Your task to perform on an android device: stop showing notifications on the lock screen Image 0: 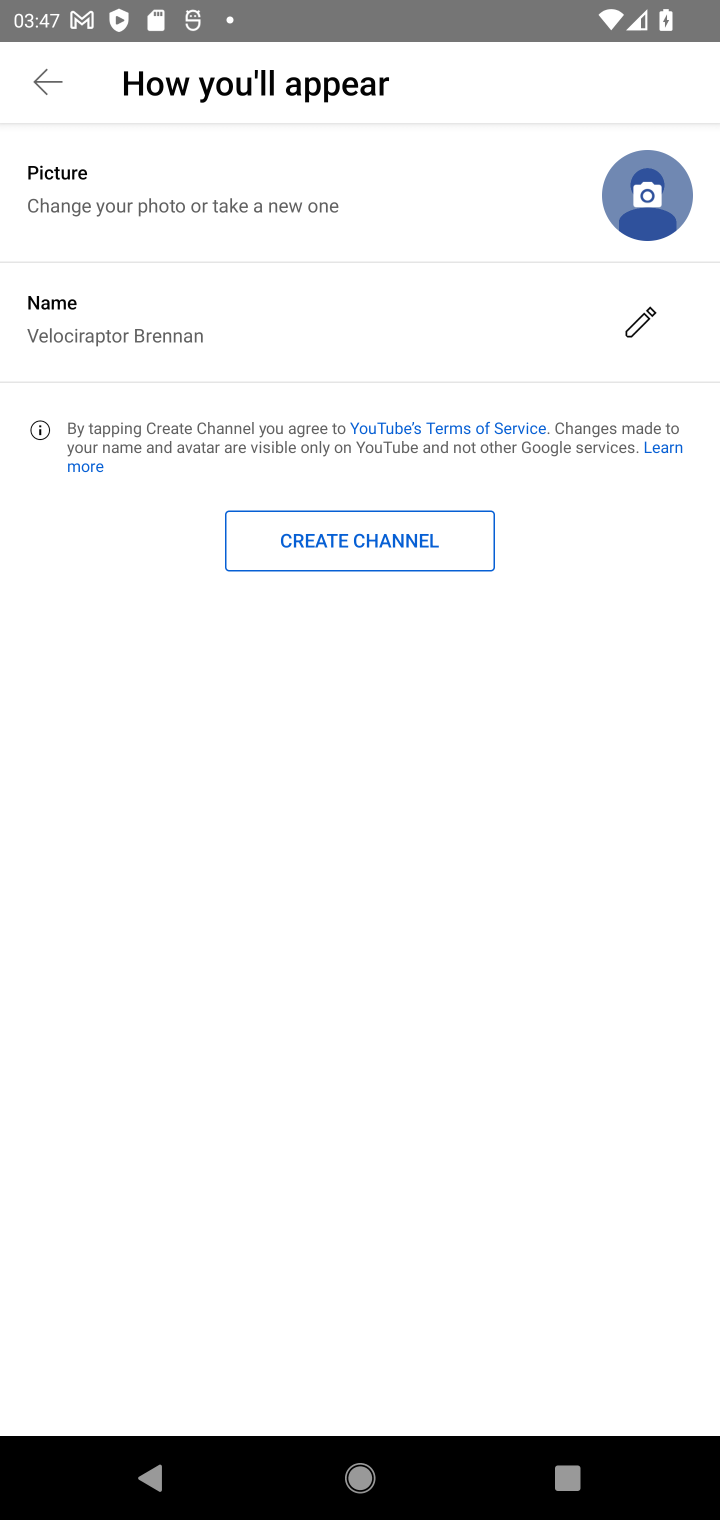
Step 0: press home button
Your task to perform on an android device: stop showing notifications on the lock screen Image 1: 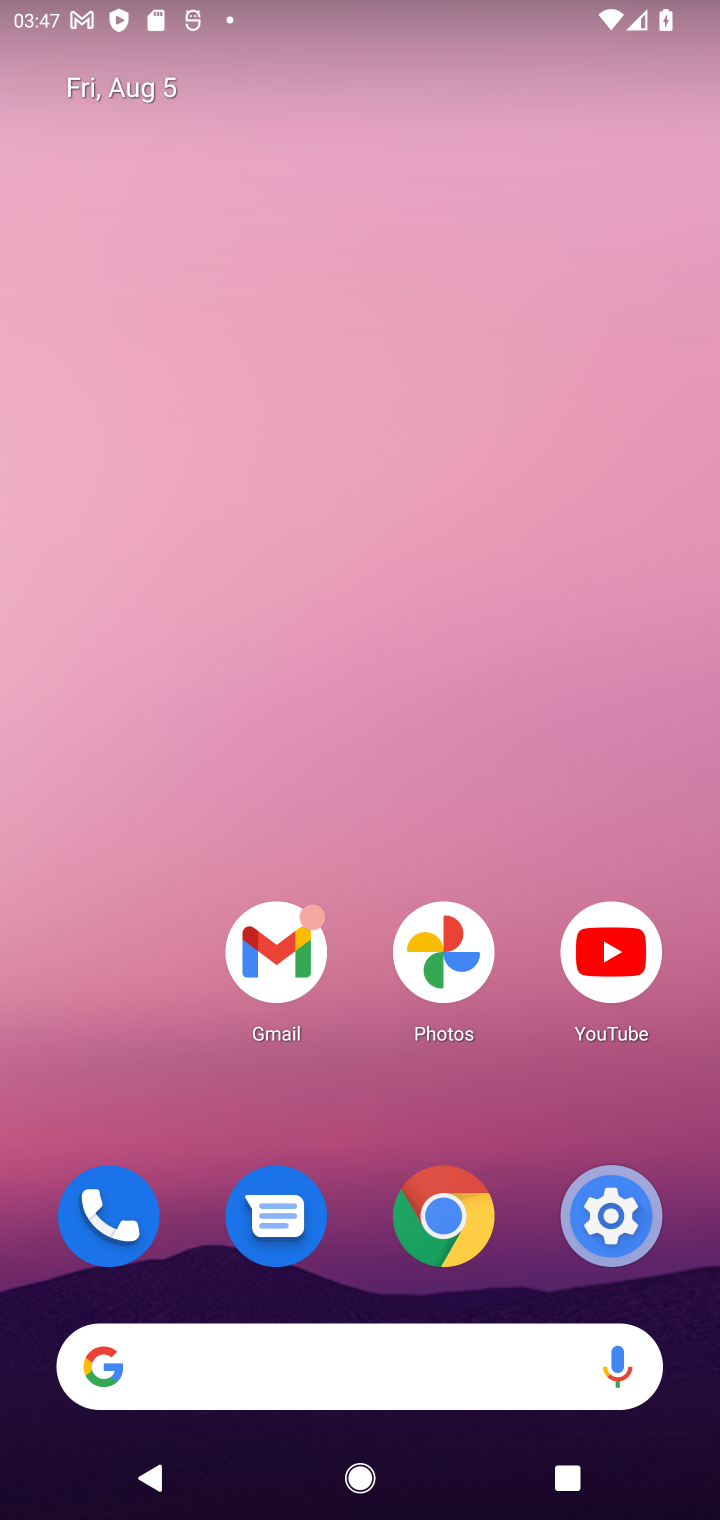
Step 1: click (630, 1215)
Your task to perform on an android device: stop showing notifications on the lock screen Image 2: 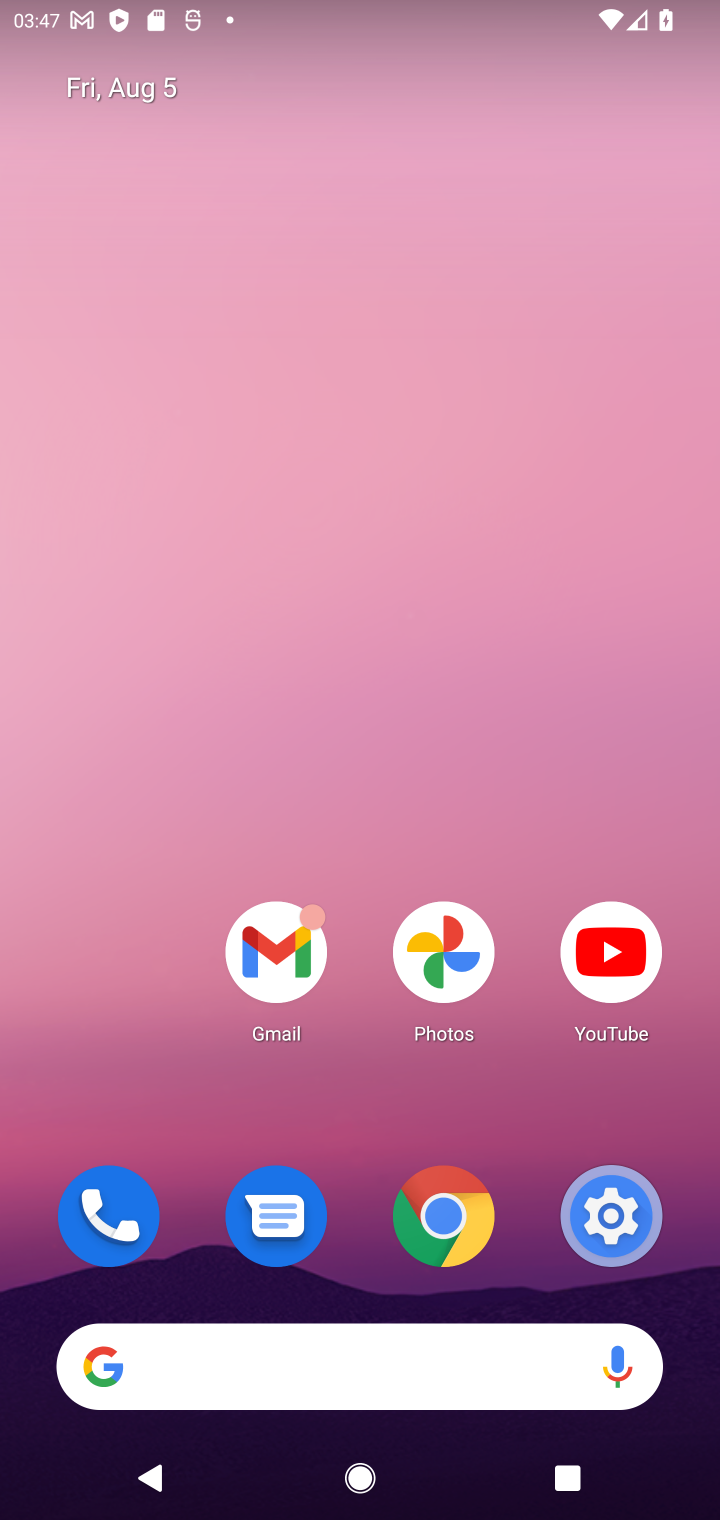
Step 2: click (640, 1211)
Your task to perform on an android device: stop showing notifications on the lock screen Image 3: 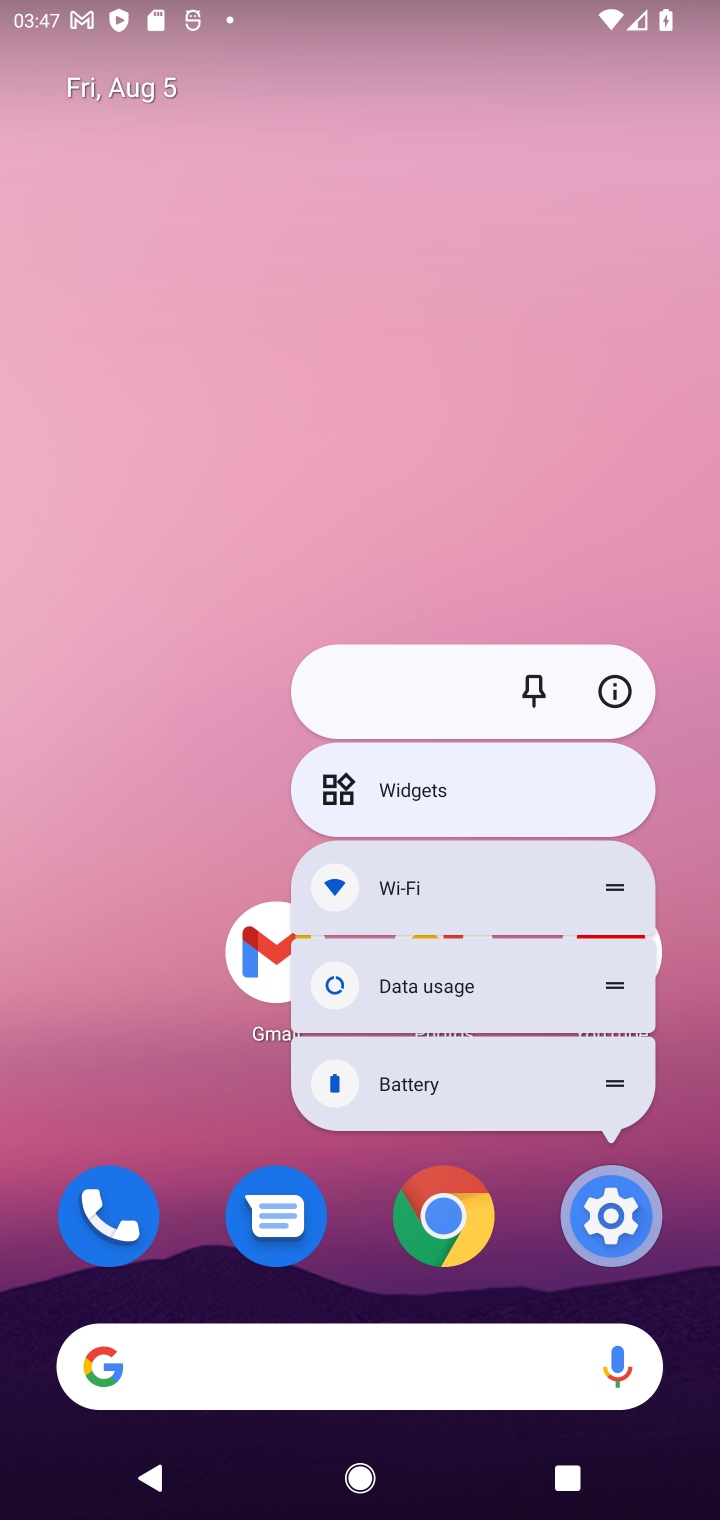
Step 3: click (636, 1224)
Your task to perform on an android device: stop showing notifications on the lock screen Image 4: 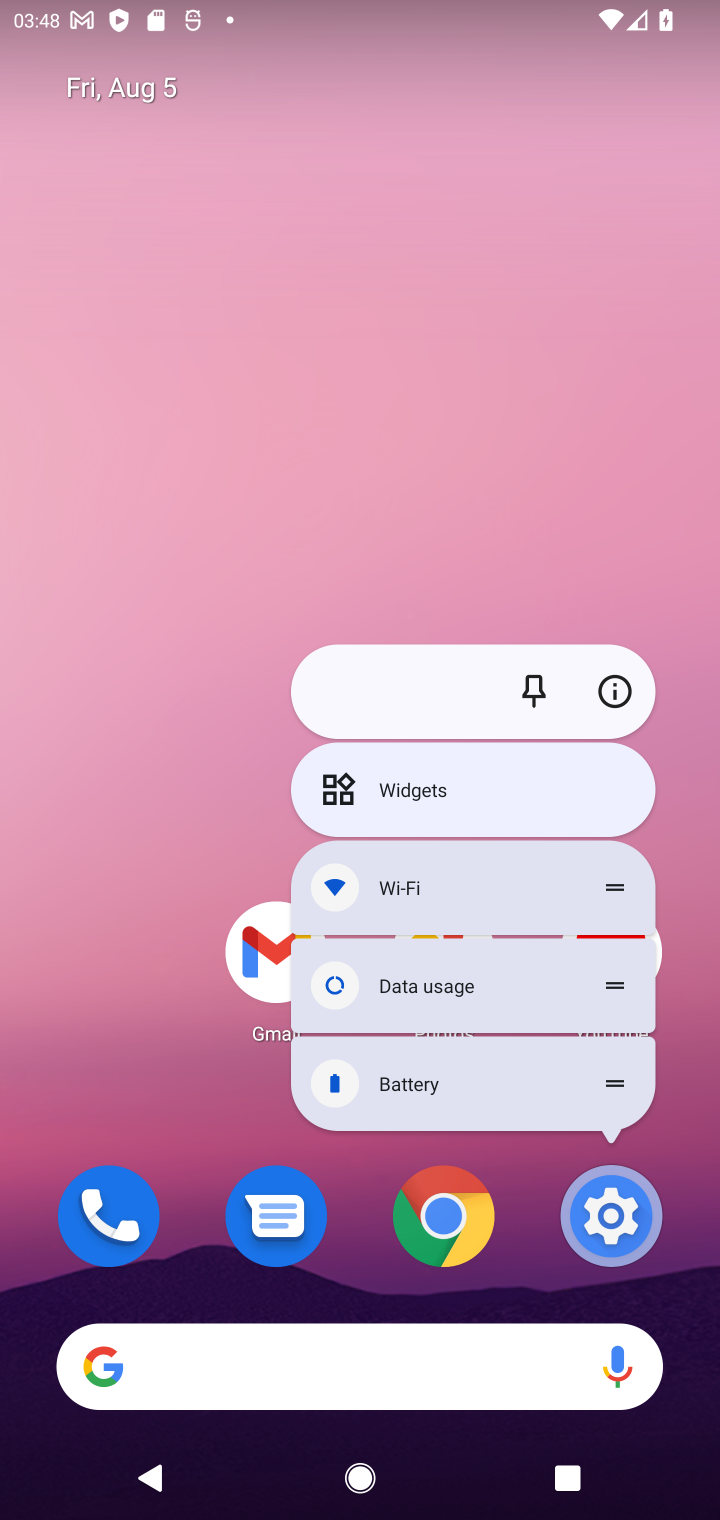
Step 4: click (636, 1224)
Your task to perform on an android device: stop showing notifications on the lock screen Image 5: 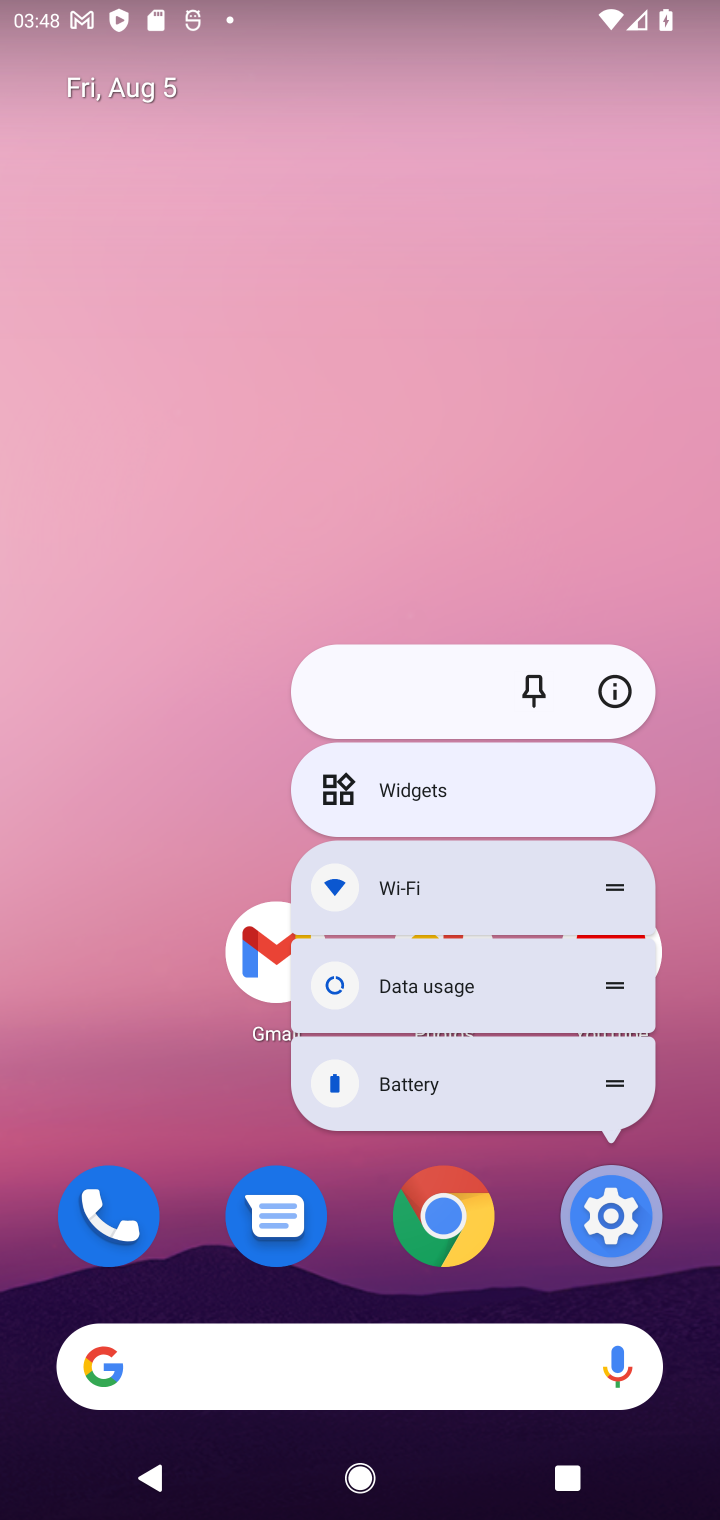
Step 5: click (636, 1224)
Your task to perform on an android device: stop showing notifications on the lock screen Image 6: 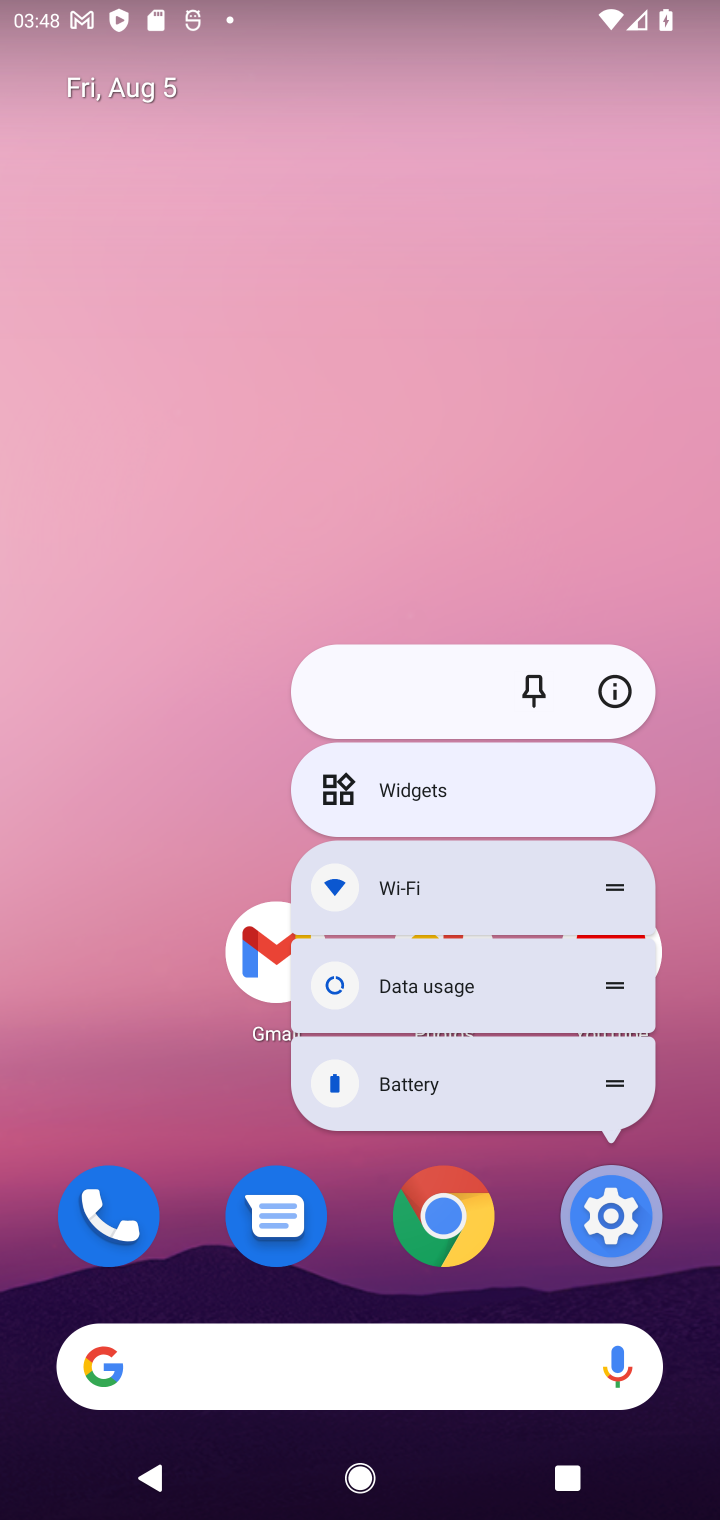
Step 6: click (636, 1224)
Your task to perform on an android device: stop showing notifications on the lock screen Image 7: 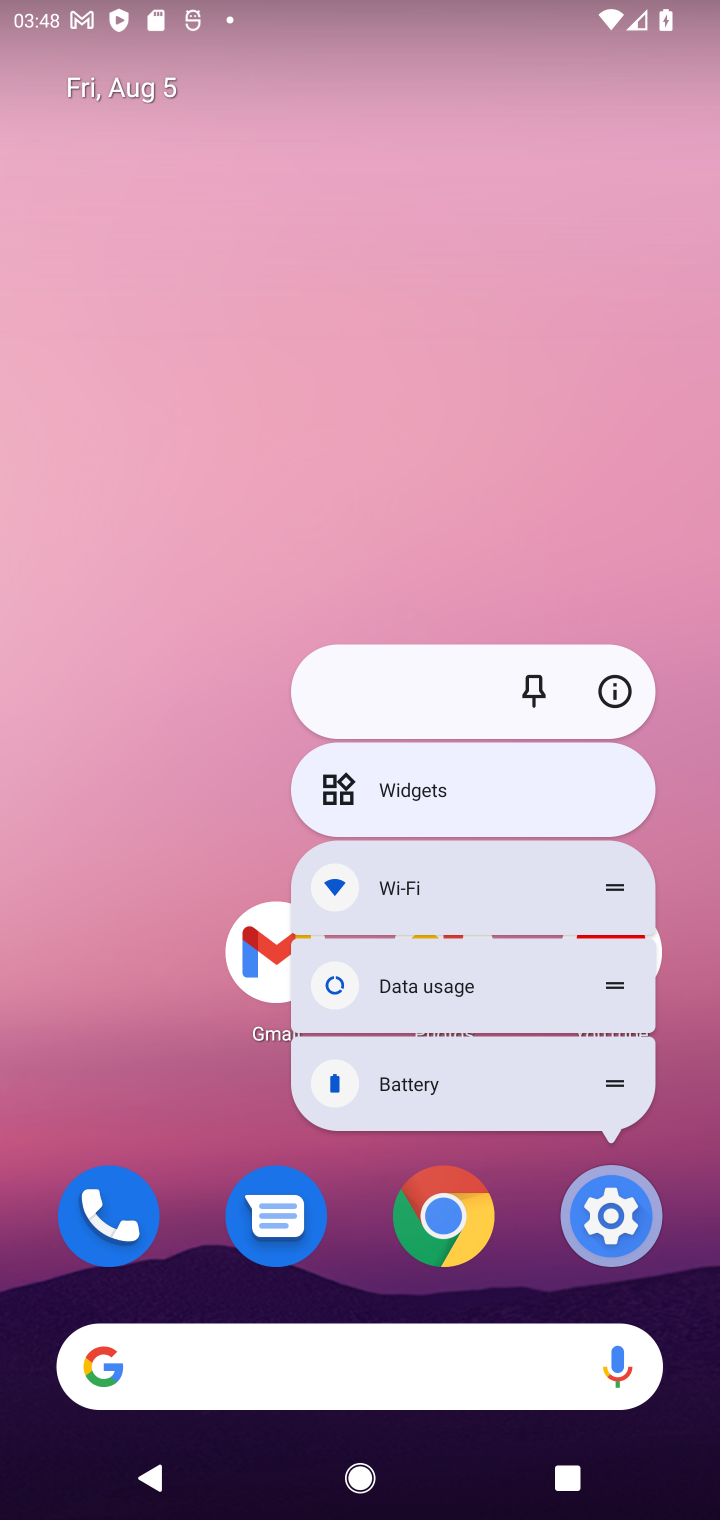
Step 7: click (636, 1224)
Your task to perform on an android device: stop showing notifications on the lock screen Image 8: 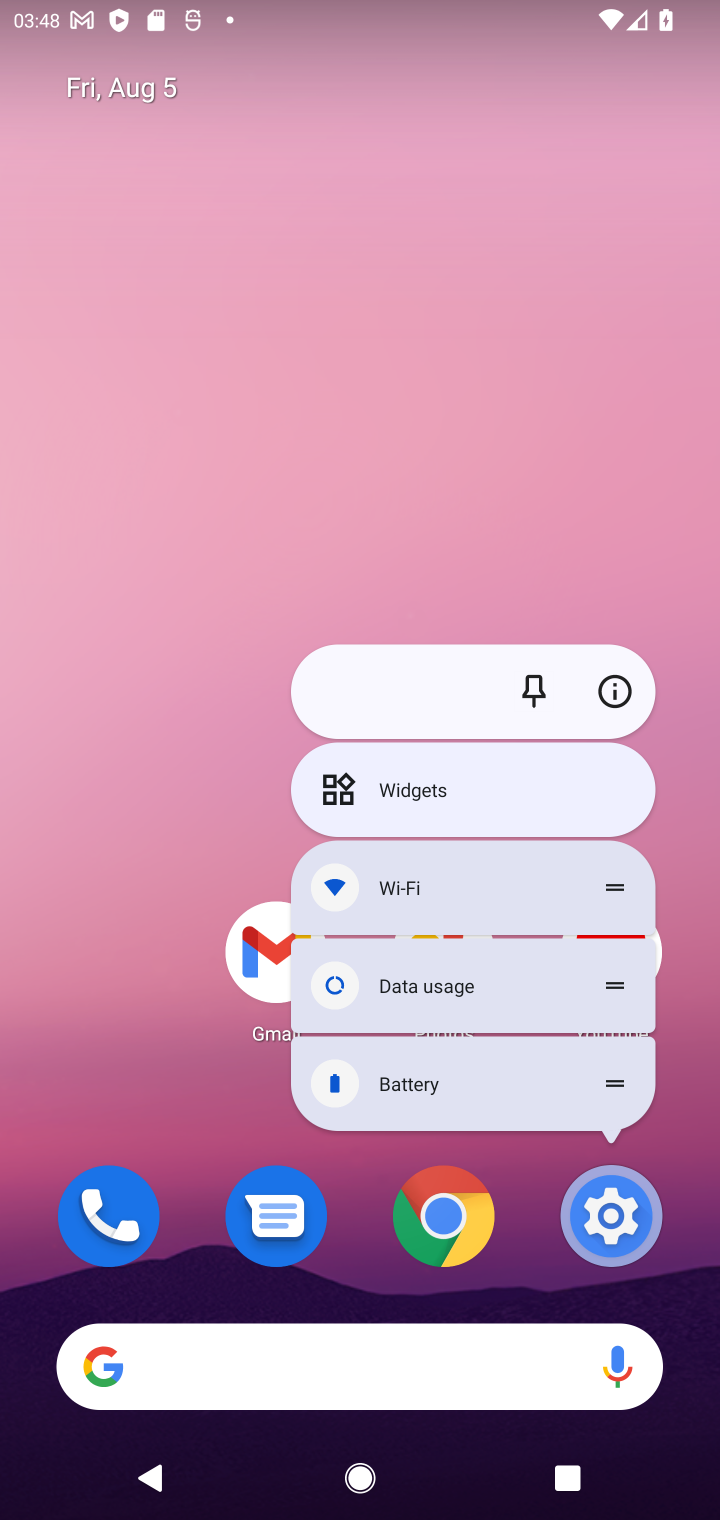
Step 8: click (617, 1210)
Your task to perform on an android device: stop showing notifications on the lock screen Image 9: 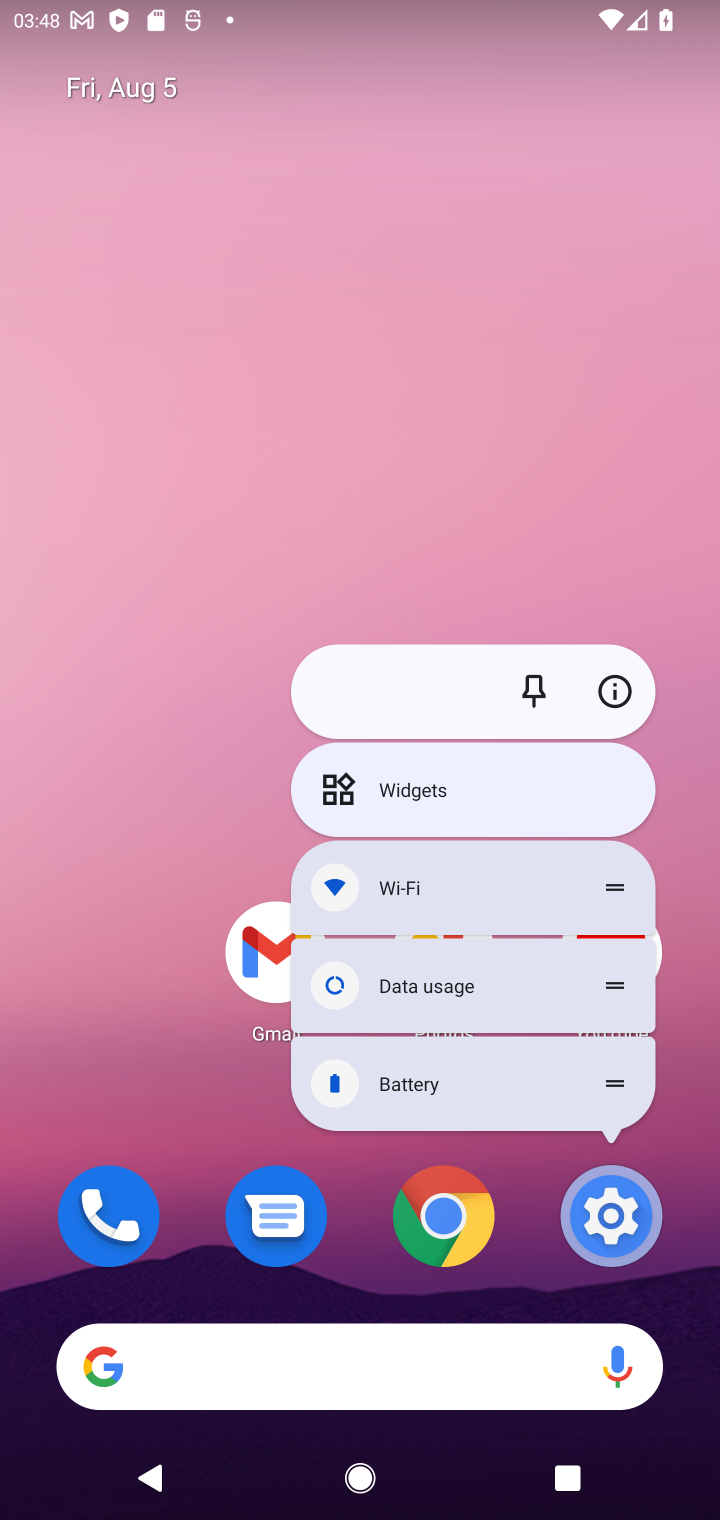
Step 9: click (617, 1210)
Your task to perform on an android device: stop showing notifications on the lock screen Image 10: 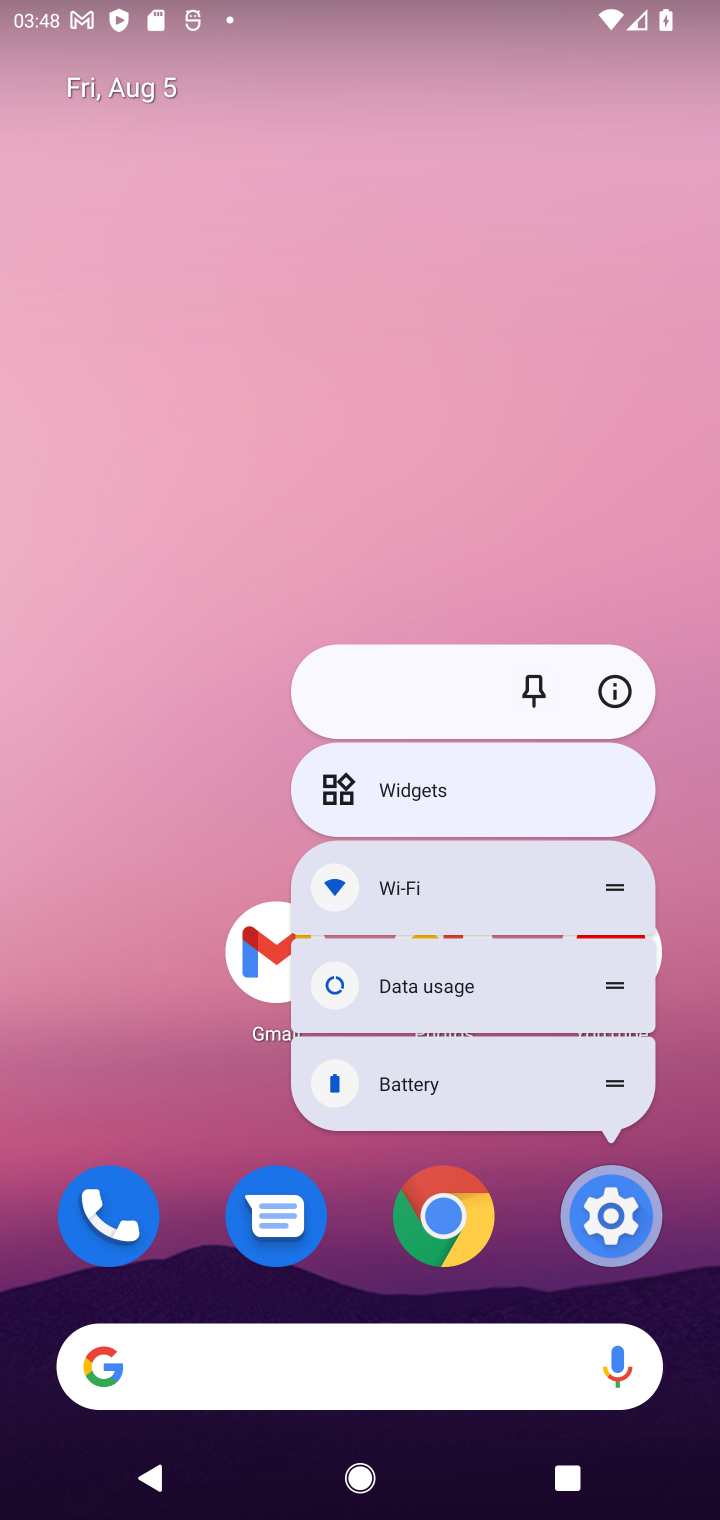
Step 10: click (621, 1243)
Your task to perform on an android device: stop showing notifications on the lock screen Image 11: 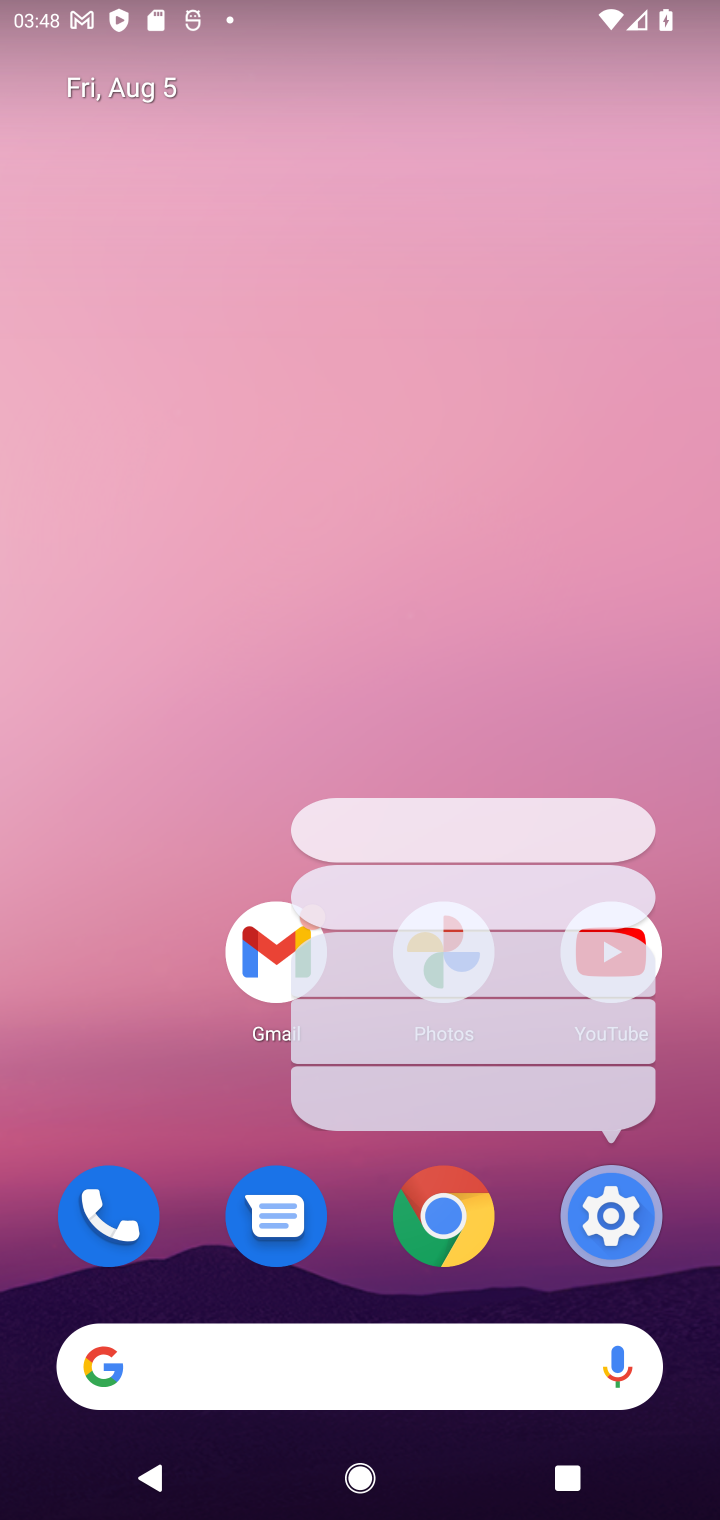
Step 11: click (621, 1239)
Your task to perform on an android device: stop showing notifications on the lock screen Image 12: 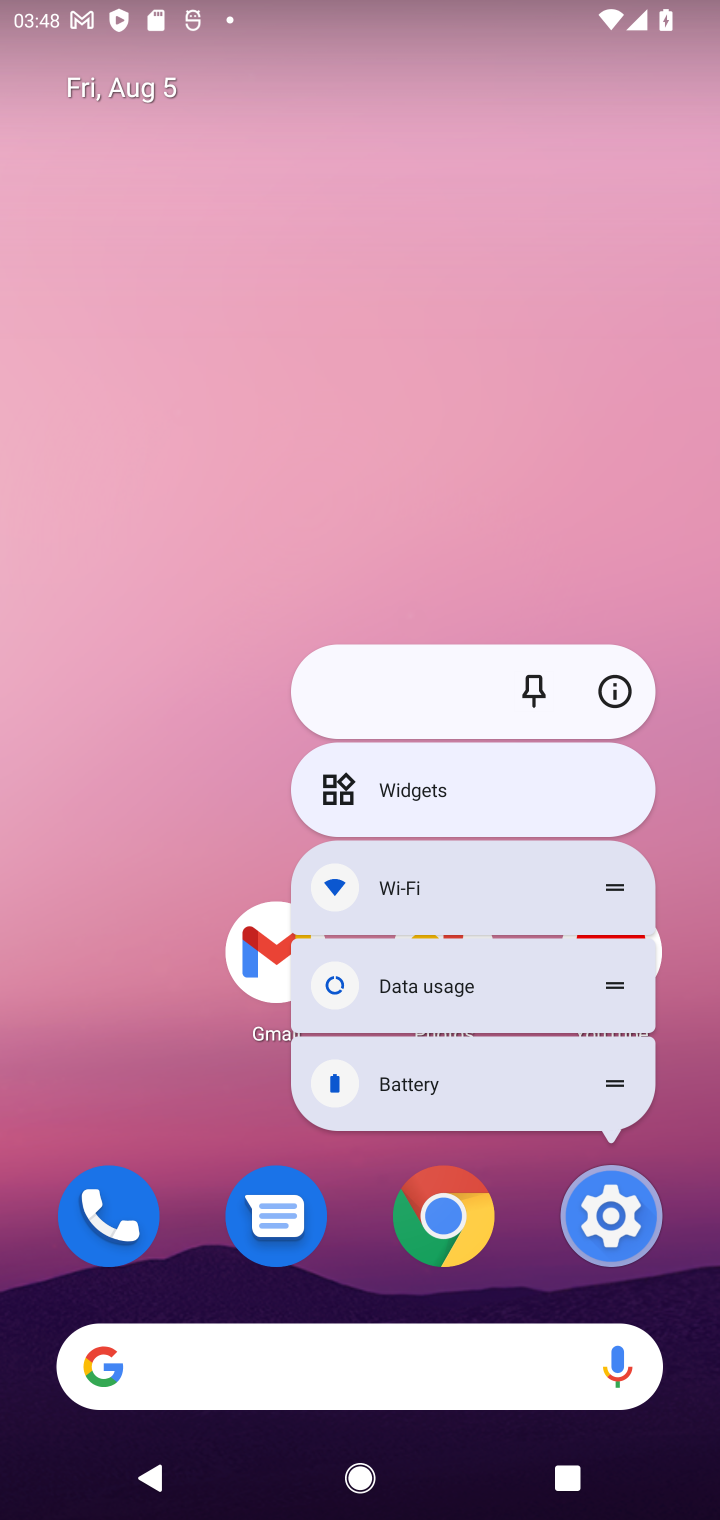
Step 12: drag from (586, 1170) to (611, 1276)
Your task to perform on an android device: stop showing notifications on the lock screen Image 13: 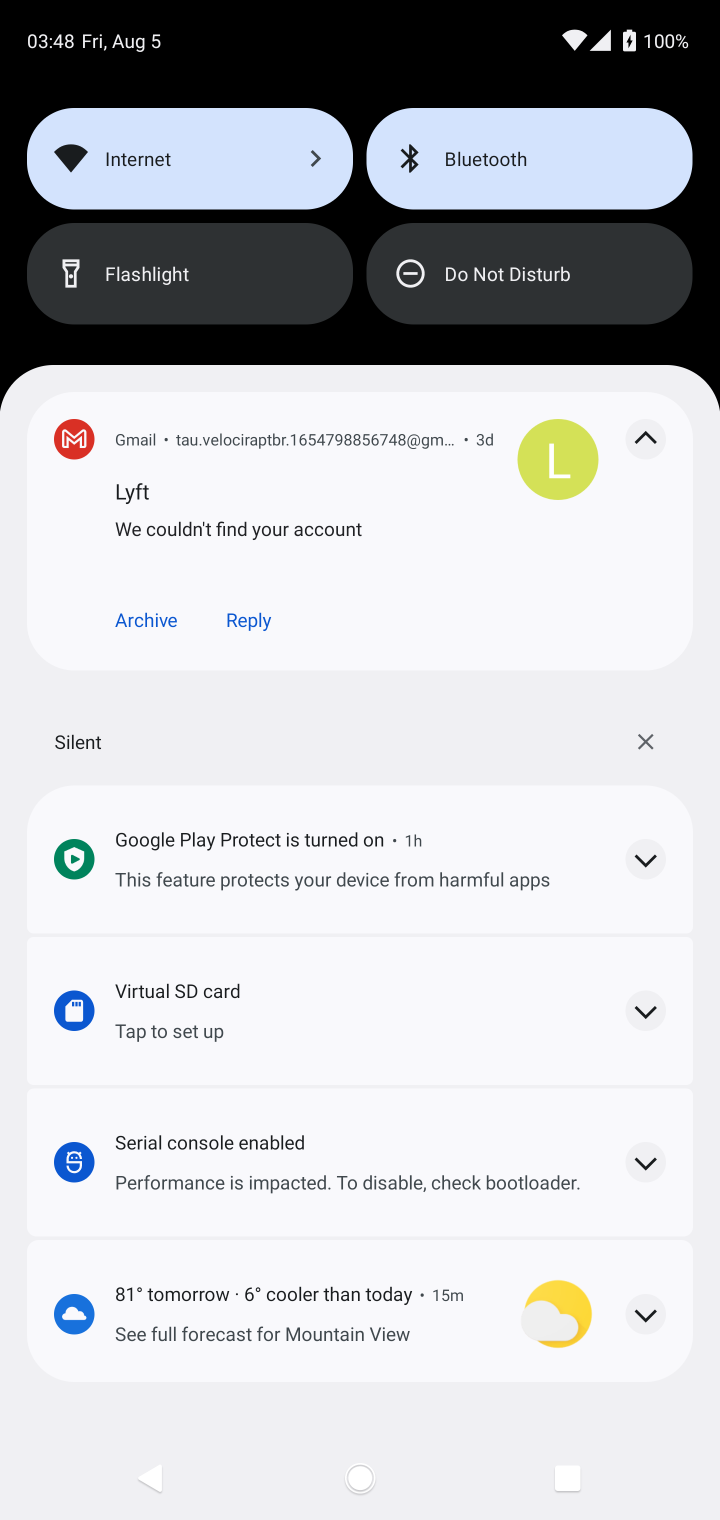
Step 13: click (614, 1213)
Your task to perform on an android device: stop showing notifications on the lock screen Image 14: 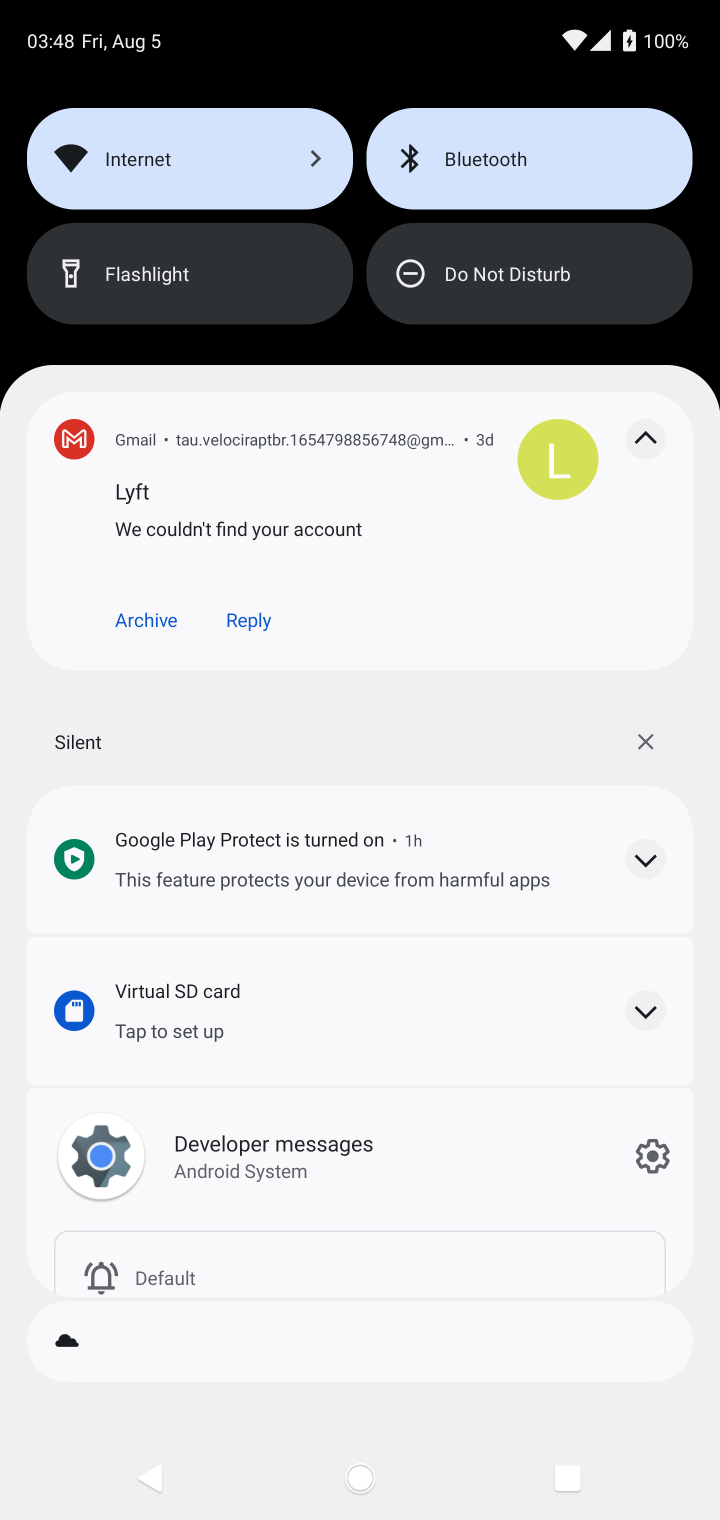
Step 14: press home button
Your task to perform on an android device: stop showing notifications on the lock screen Image 15: 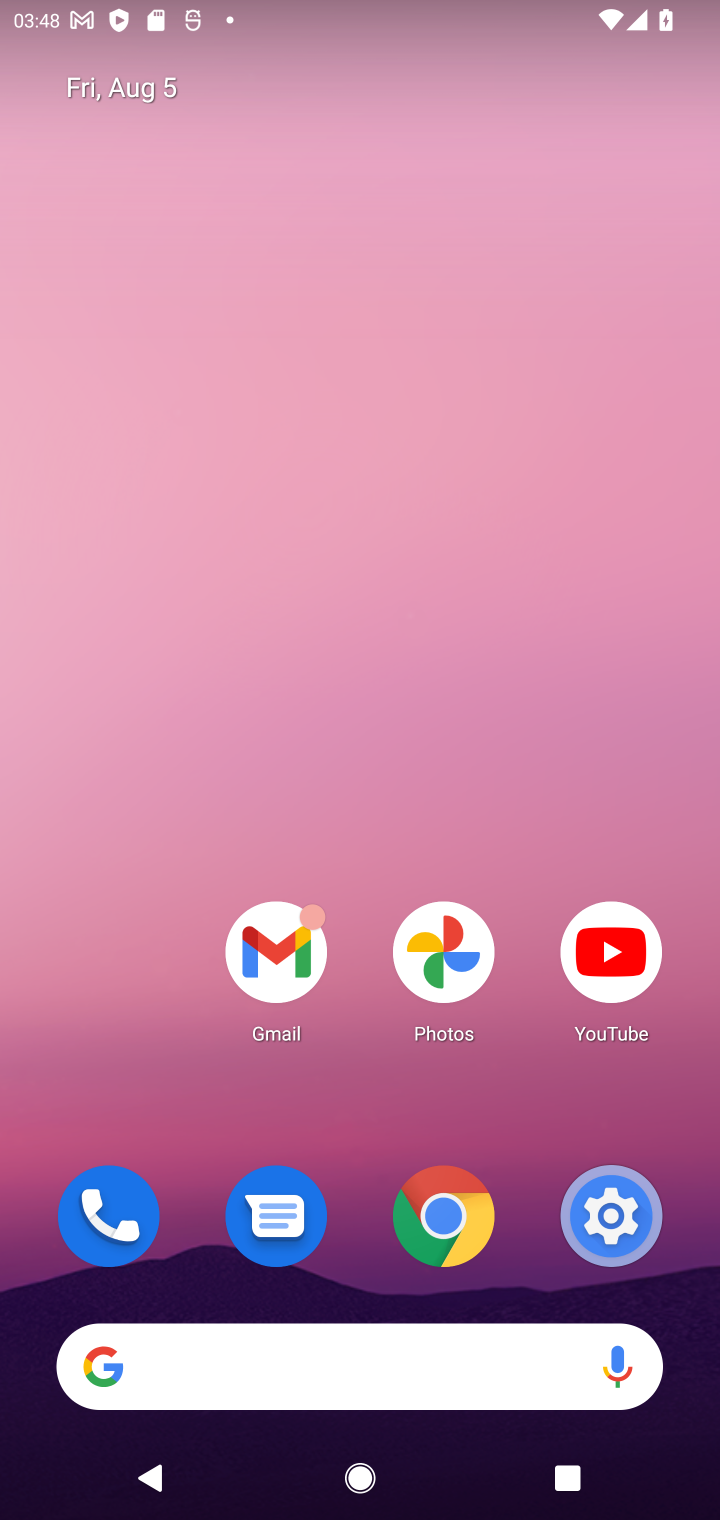
Step 15: click (611, 1224)
Your task to perform on an android device: stop showing notifications on the lock screen Image 16: 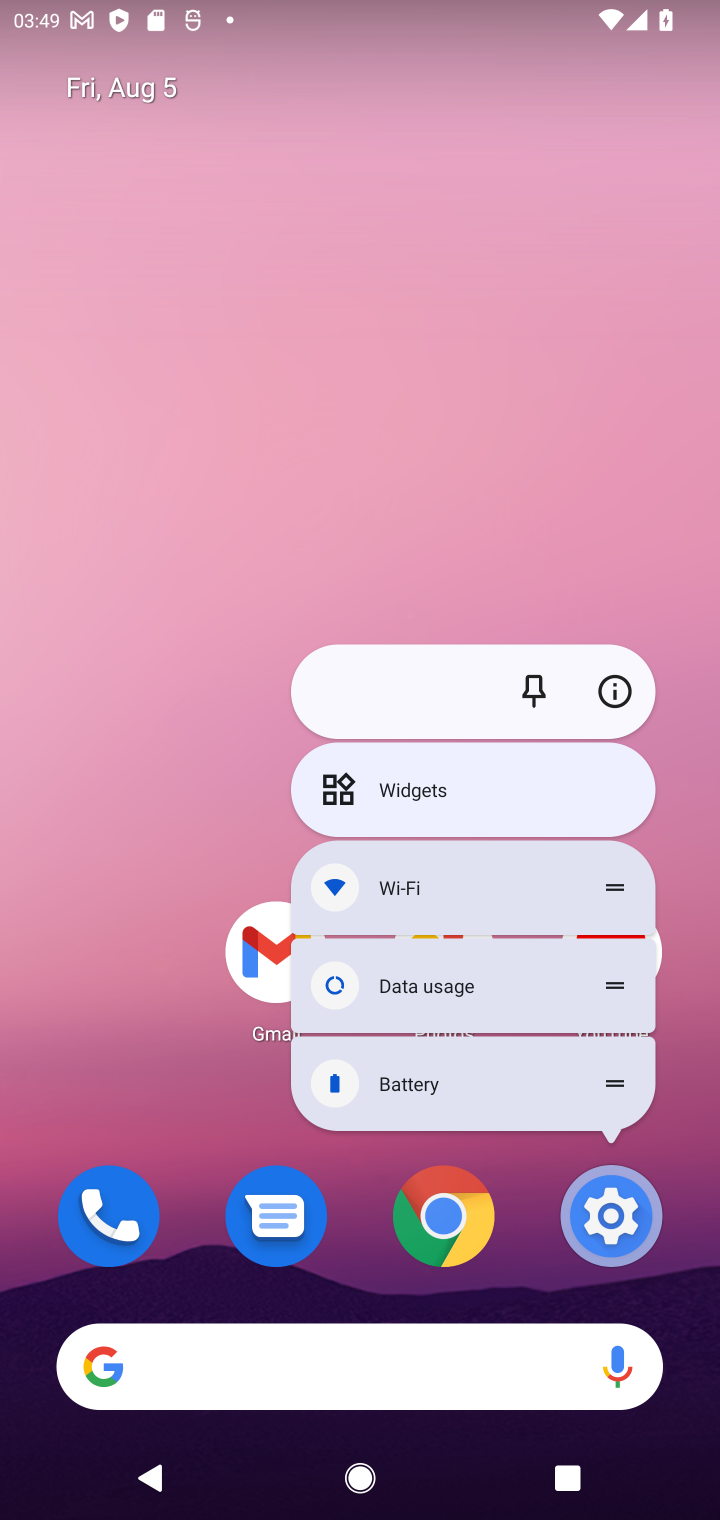
Step 16: click (630, 1228)
Your task to perform on an android device: stop showing notifications on the lock screen Image 17: 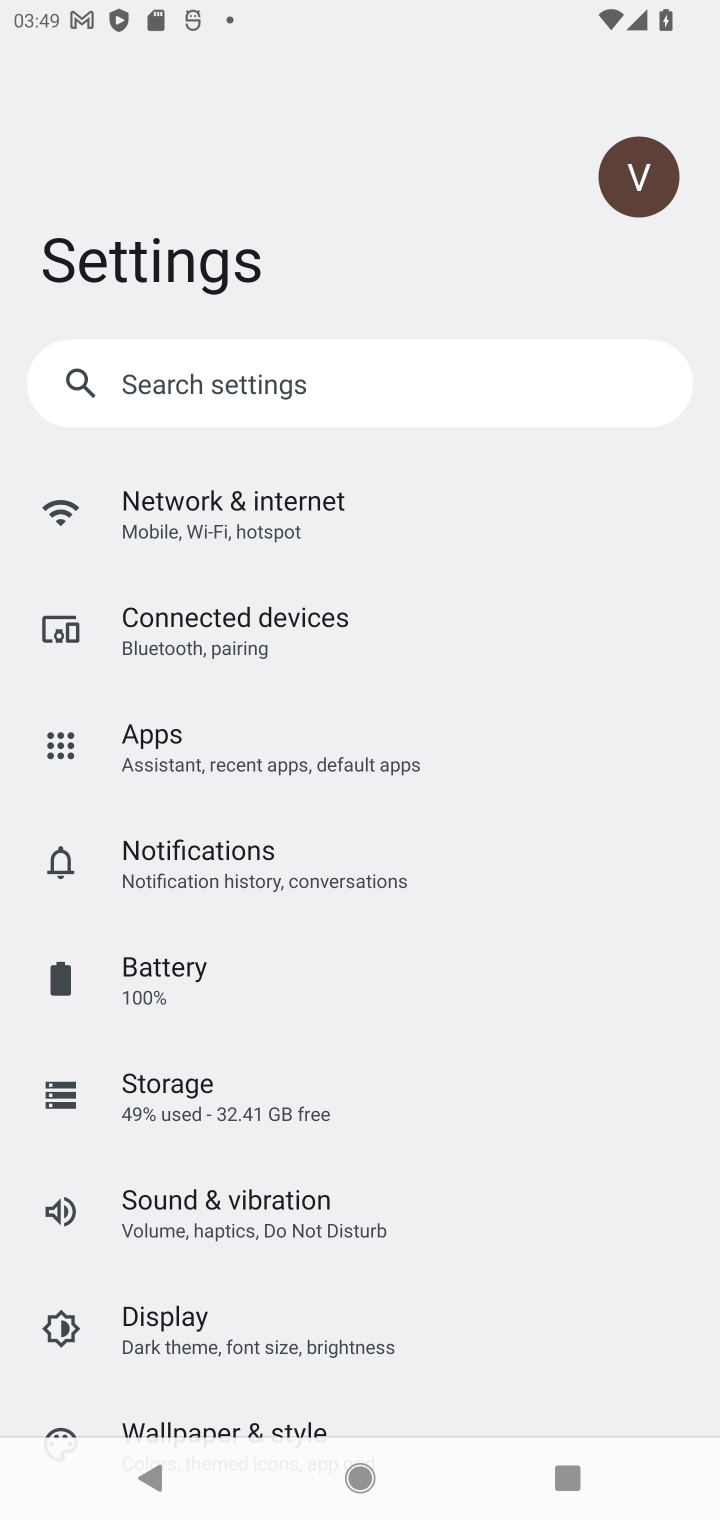
Step 17: click (385, 877)
Your task to perform on an android device: stop showing notifications on the lock screen Image 18: 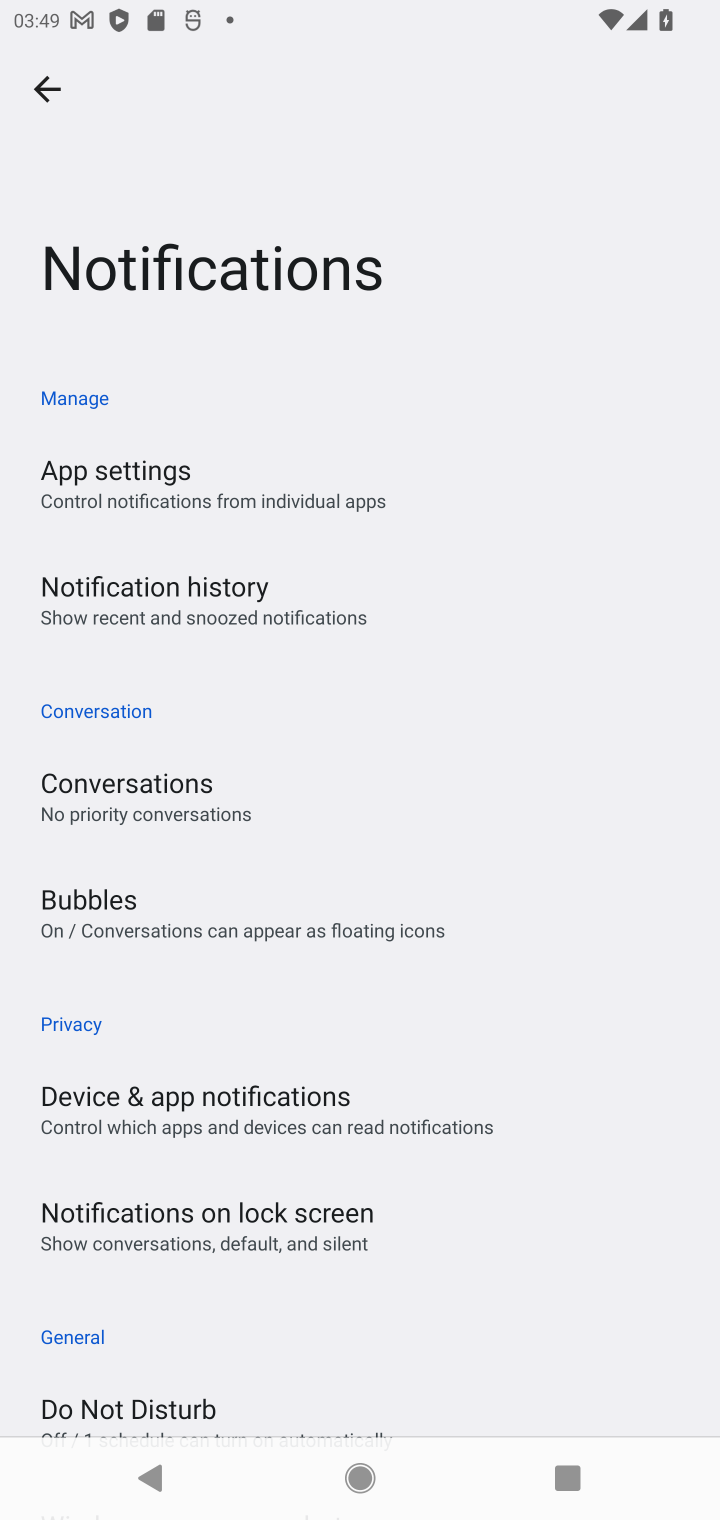
Step 18: drag from (453, 1346) to (679, 474)
Your task to perform on an android device: stop showing notifications on the lock screen Image 19: 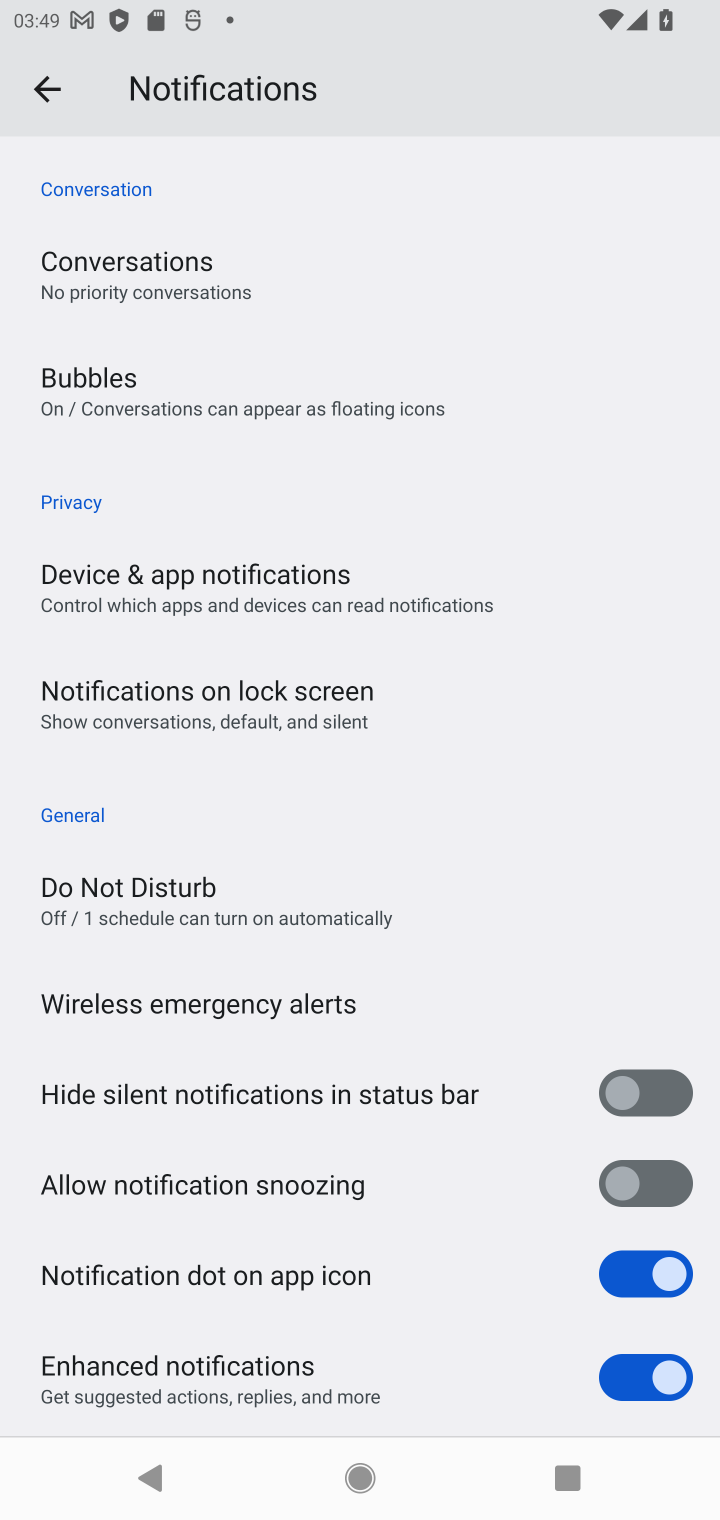
Step 19: click (242, 709)
Your task to perform on an android device: stop showing notifications on the lock screen Image 20: 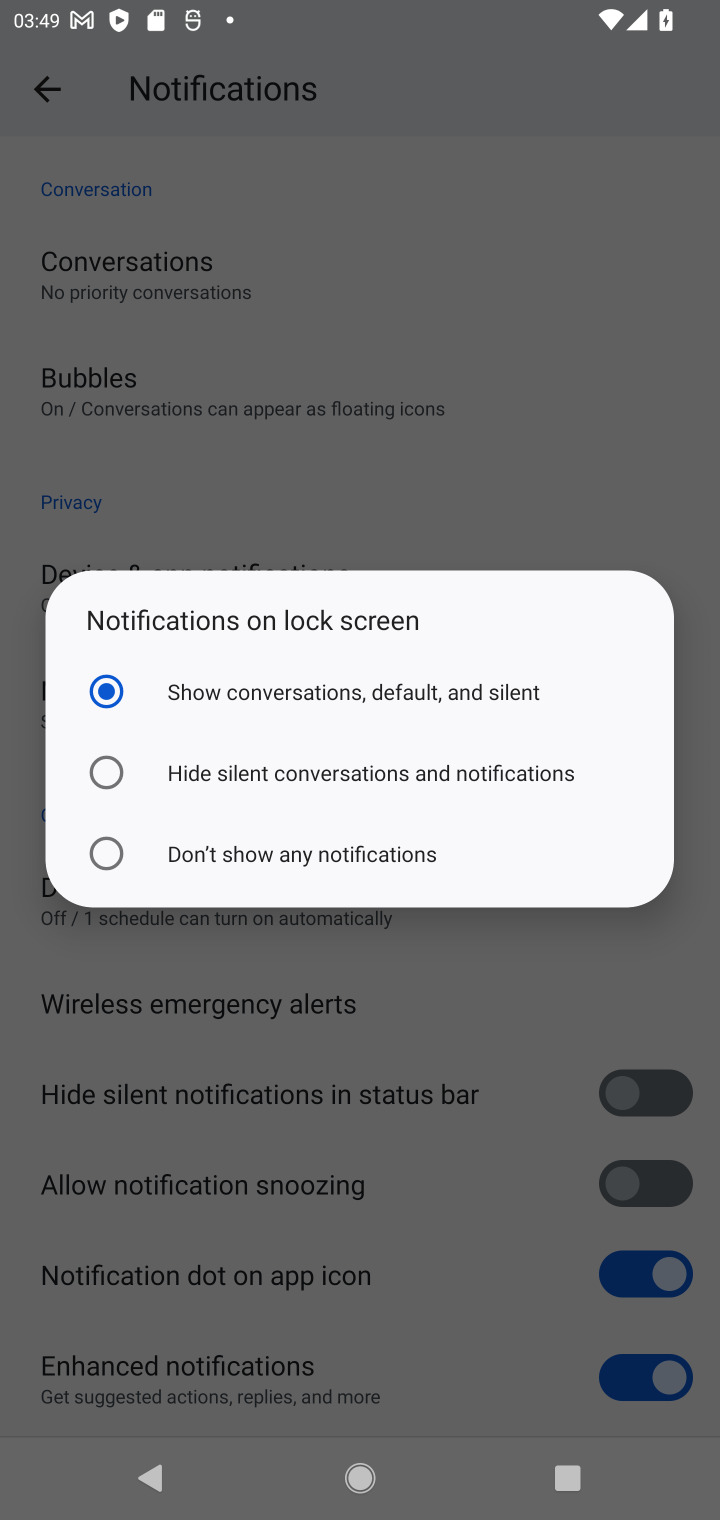
Step 20: click (304, 857)
Your task to perform on an android device: stop showing notifications on the lock screen Image 21: 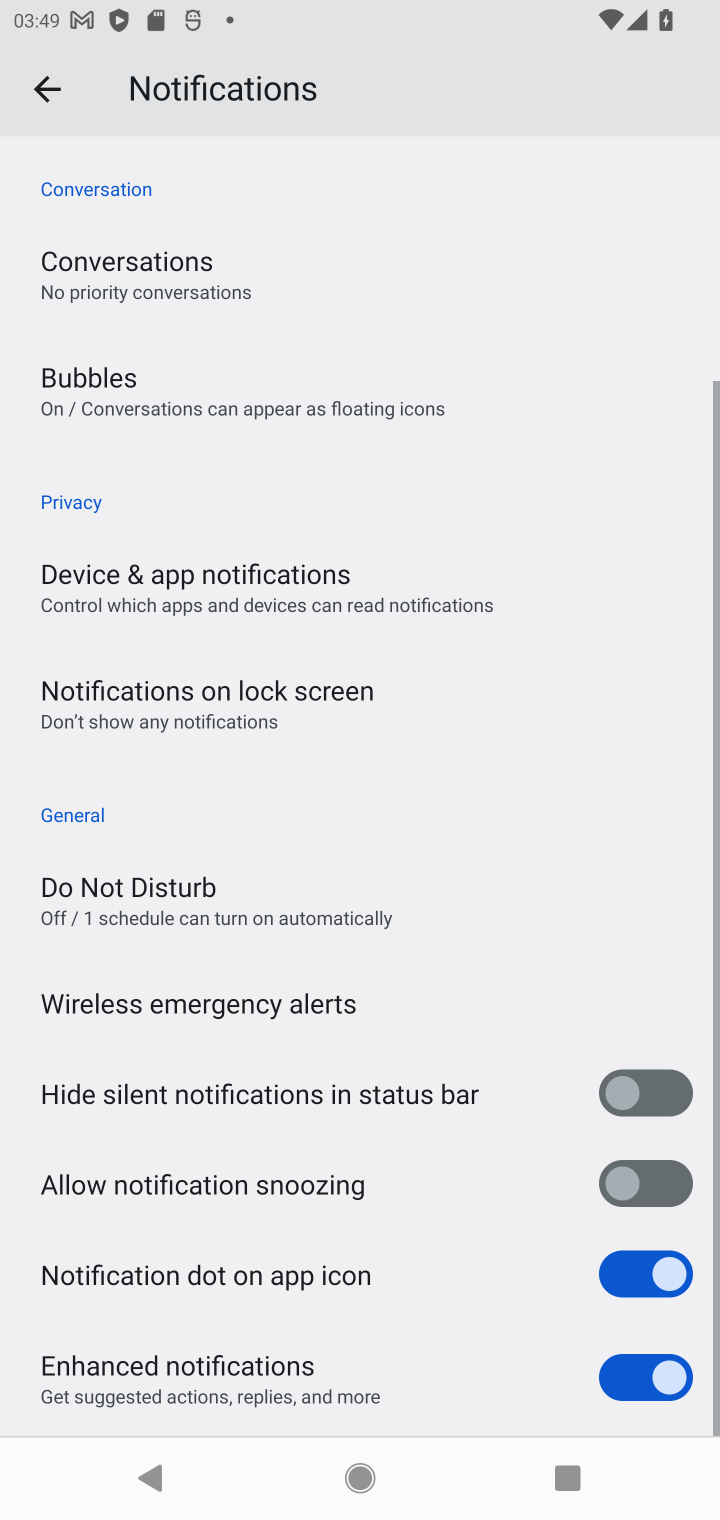
Step 21: task complete